Your task to perform on an android device: Open calendar and show me the second week of next month Image 0: 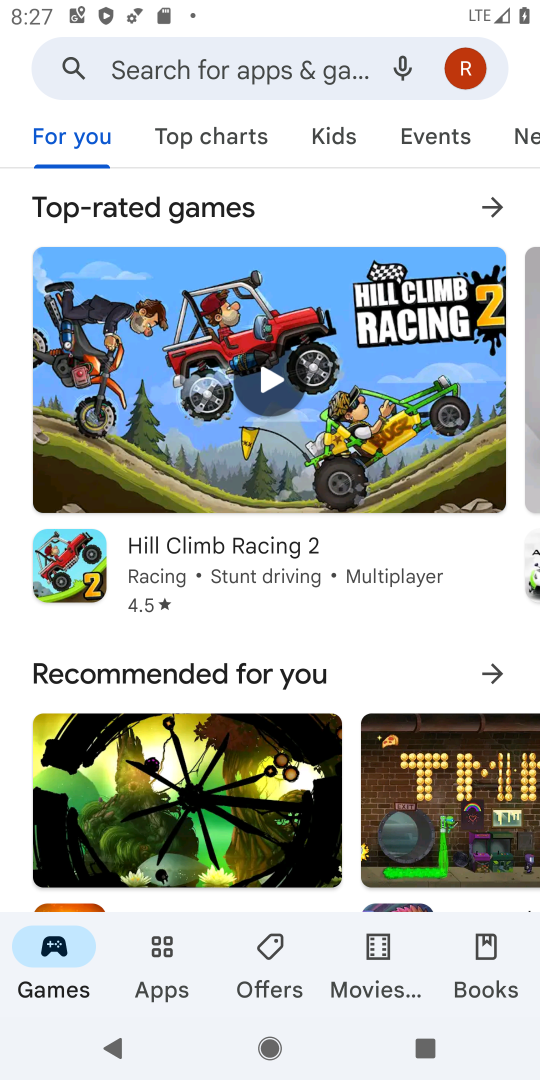
Step 0: press home button
Your task to perform on an android device: Open calendar and show me the second week of next month Image 1: 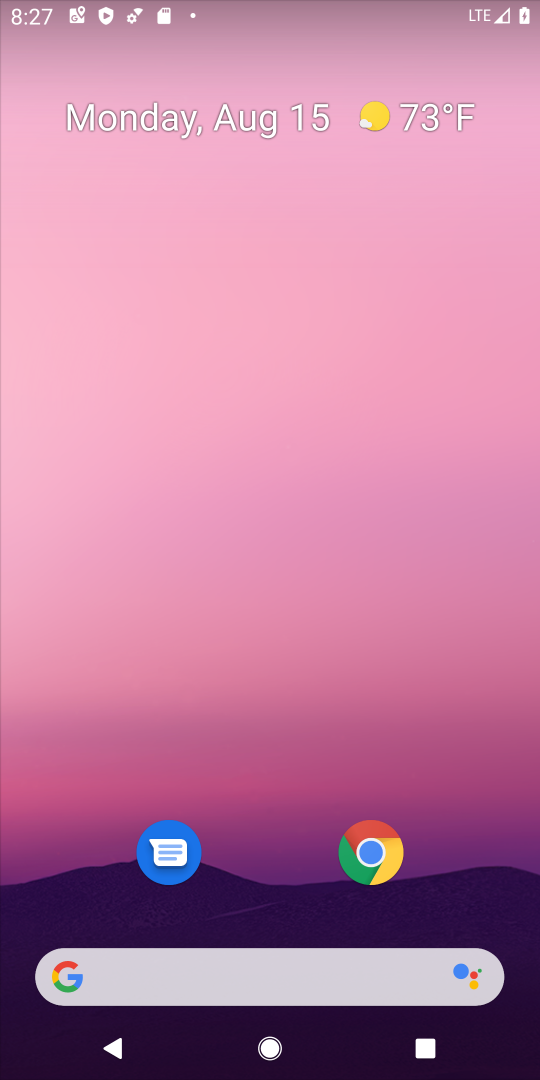
Step 1: drag from (222, 979) to (317, 176)
Your task to perform on an android device: Open calendar and show me the second week of next month Image 2: 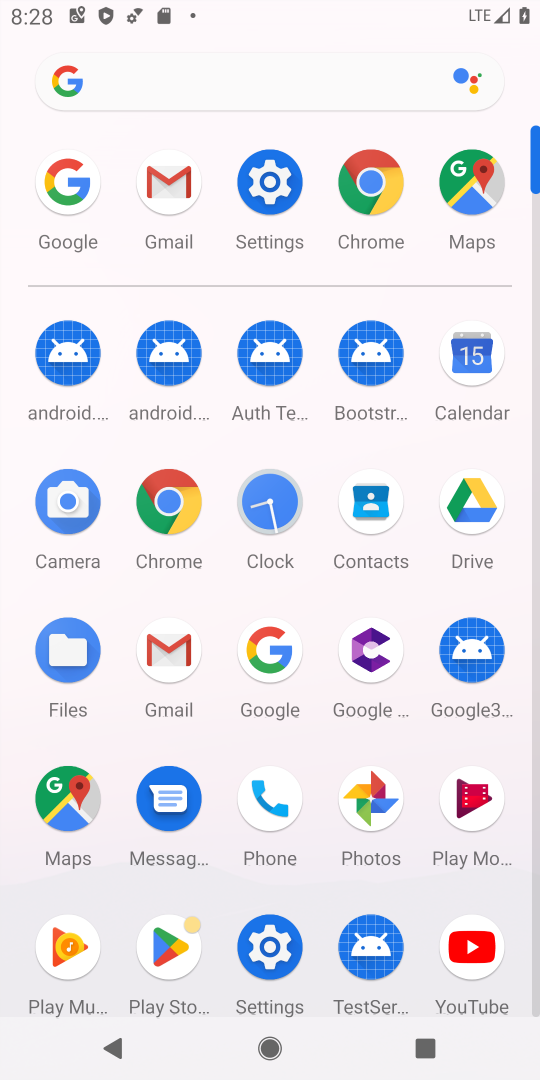
Step 2: click (469, 359)
Your task to perform on an android device: Open calendar and show me the second week of next month Image 3: 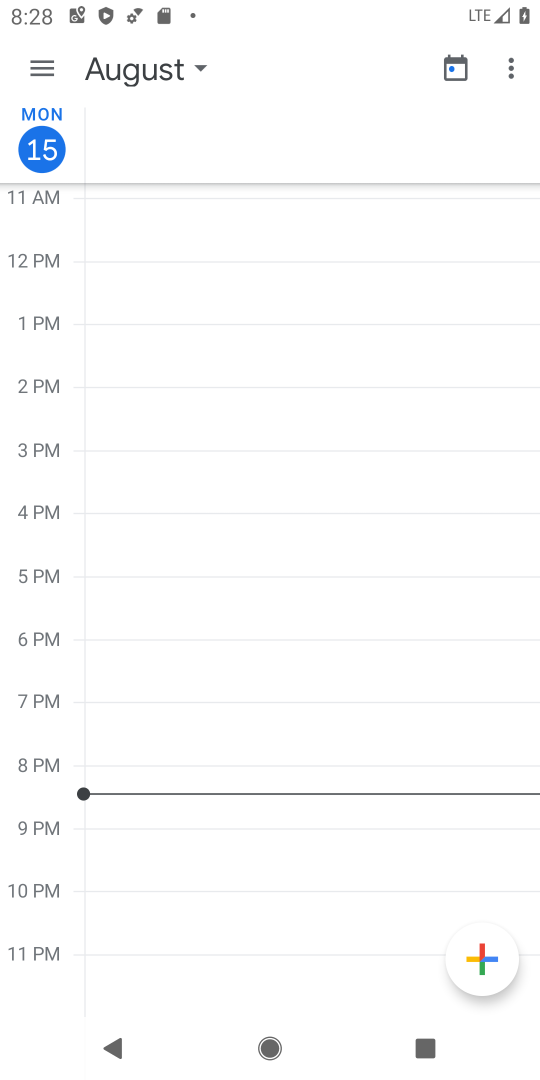
Step 3: click (451, 71)
Your task to perform on an android device: Open calendar and show me the second week of next month Image 4: 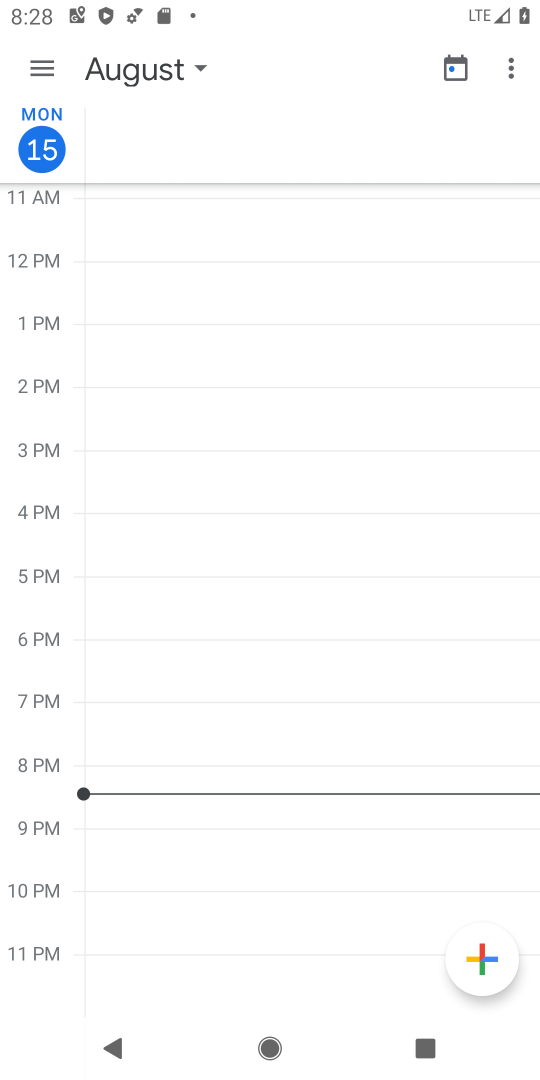
Step 4: click (199, 65)
Your task to perform on an android device: Open calendar and show me the second week of next month Image 5: 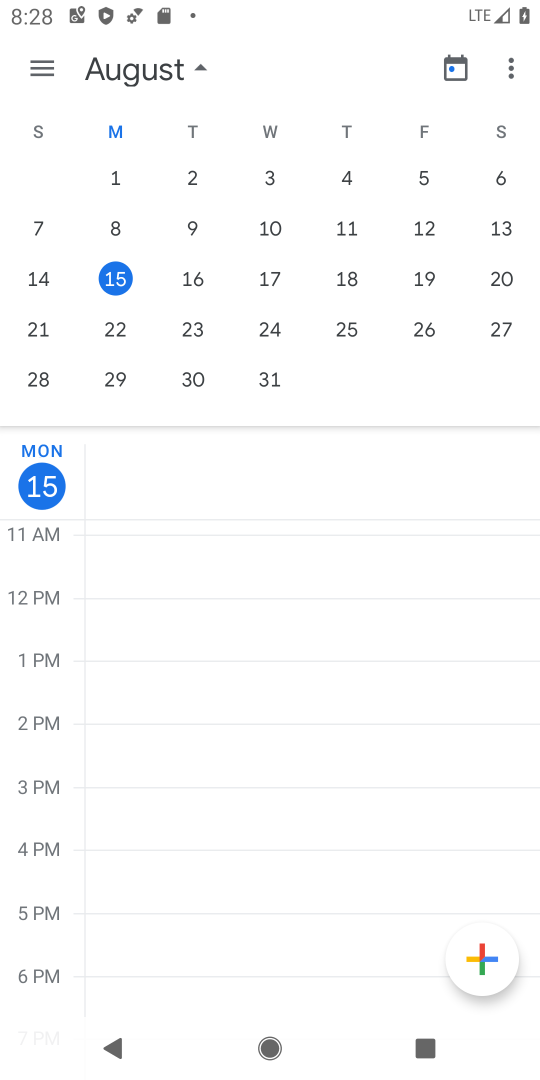
Step 5: drag from (476, 304) to (0, 358)
Your task to perform on an android device: Open calendar and show me the second week of next month Image 6: 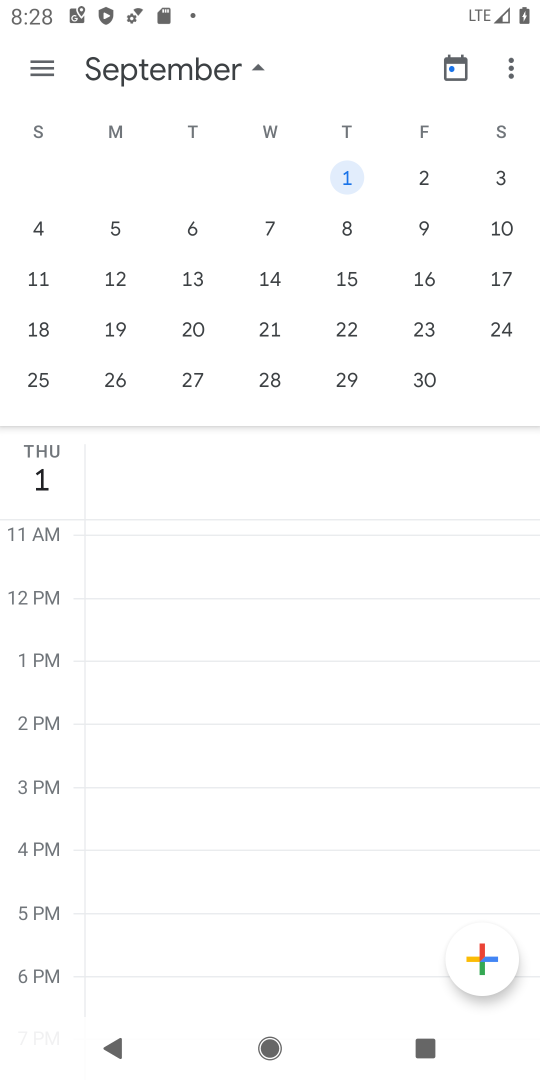
Step 6: click (115, 289)
Your task to perform on an android device: Open calendar and show me the second week of next month Image 7: 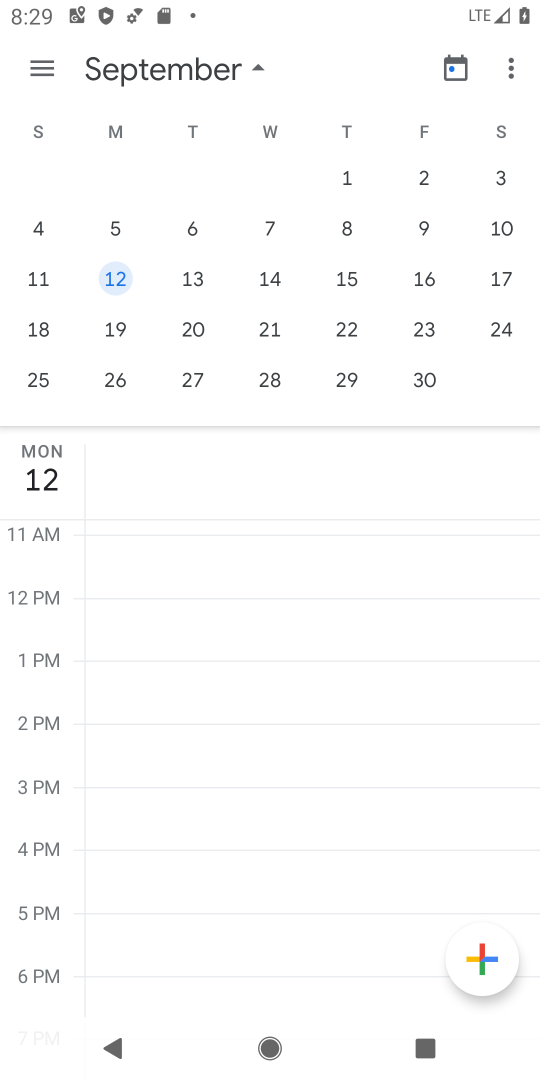
Step 7: click (54, 65)
Your task to perform on an android device: Open calendar and show me the second week of next month Image 8: 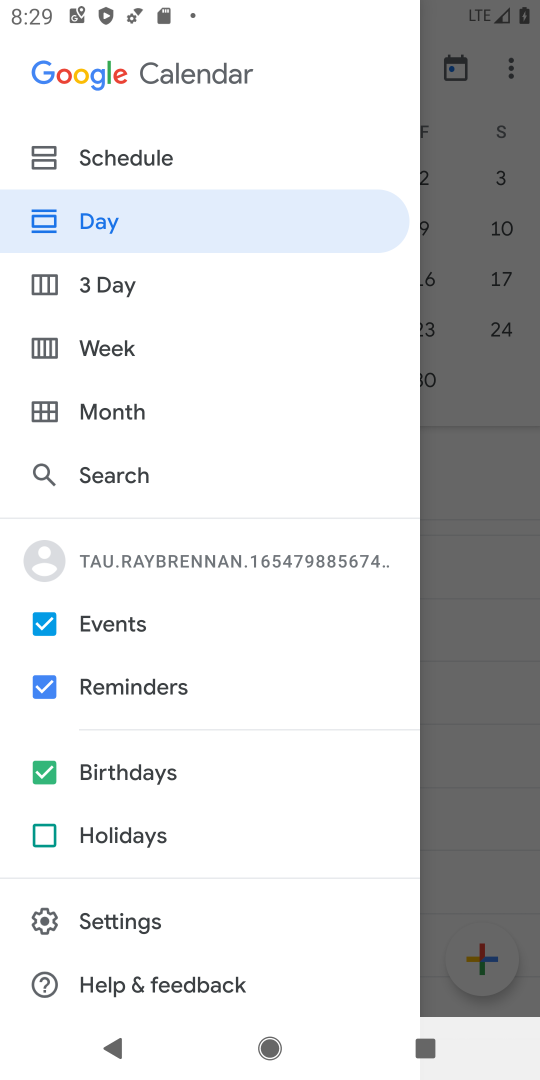
Step 8: click (110, 346)
Your task to perform on an android device: Open calendar and show me the second week of next month Image 9: 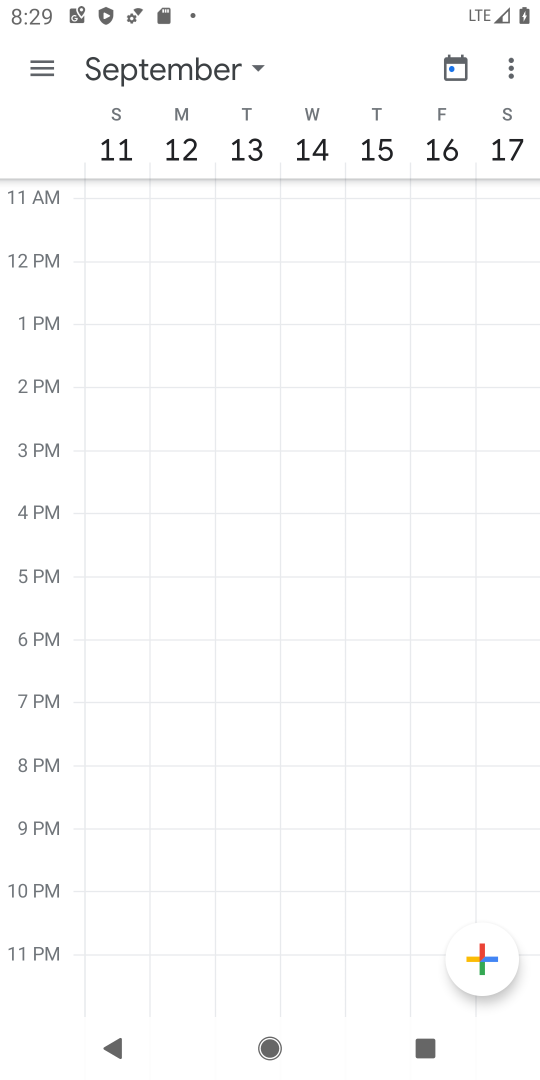
Step 9: task complete